Your task to perform on an android device: Open calendar and show me the second week of next month Image 0: 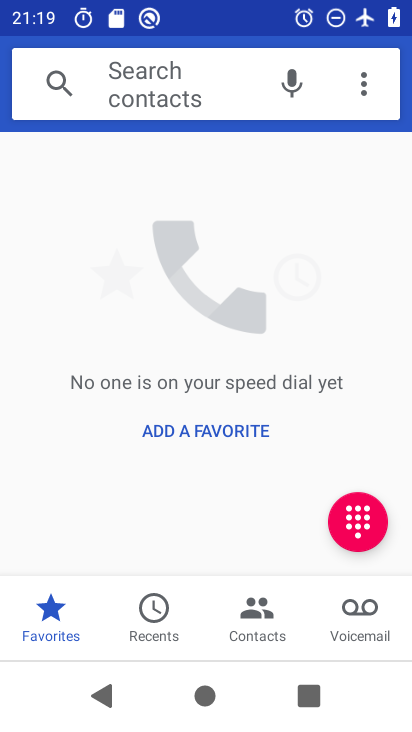
Step 0: press home button
Your task to perform on an android device: Open calendar and show me the second week of next month Image 1: 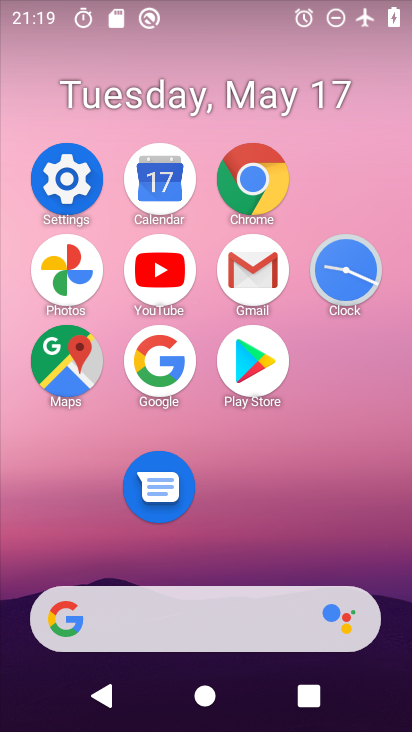
Step 1: click (187, 180)
Your task to perform on an android device: Open calendar and show me the second week of next month Image 2: 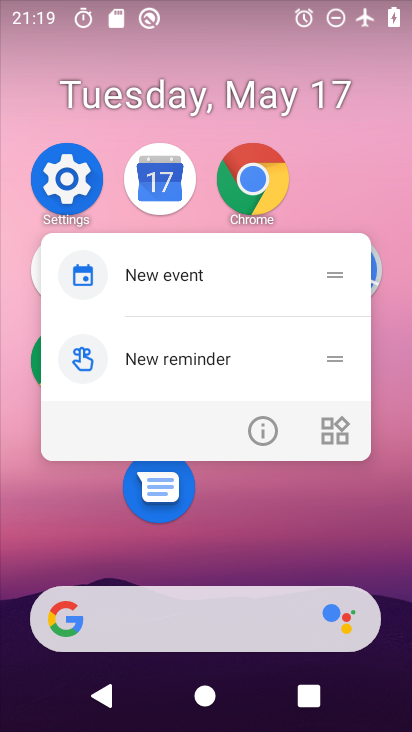
Step 2: click (182, 185)
Your task to perform on an android device: Open calendar and show me the second week of next month Image 3: 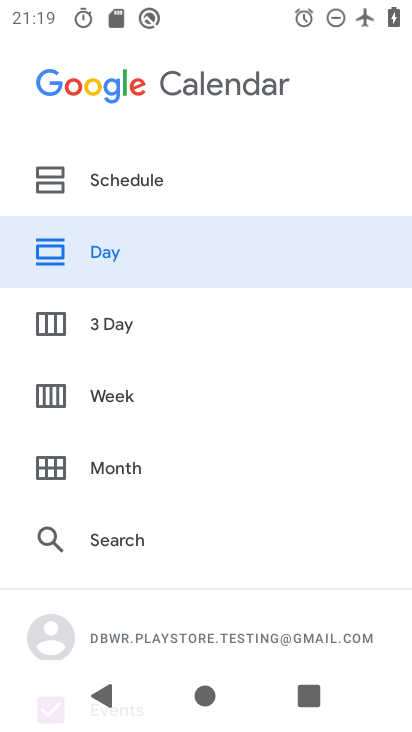
Step 3: press back button
Your task to perform on an android device: Open calendar and show me the second week of next month Image 4: 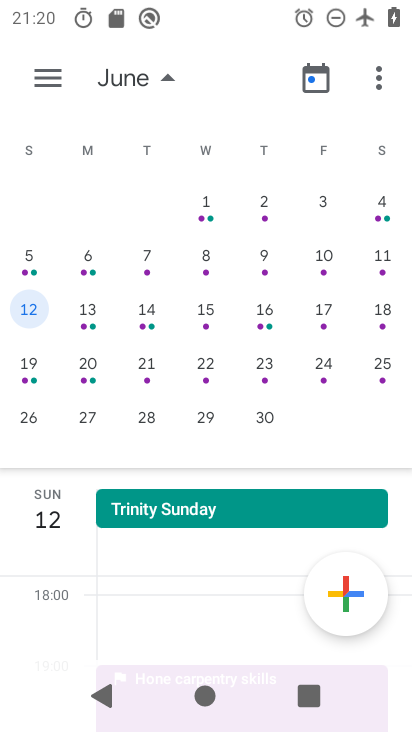
Step 4: click (63, 87)
Your task to perform on an android device: Open calendar and show me the second week of next month Image 5: 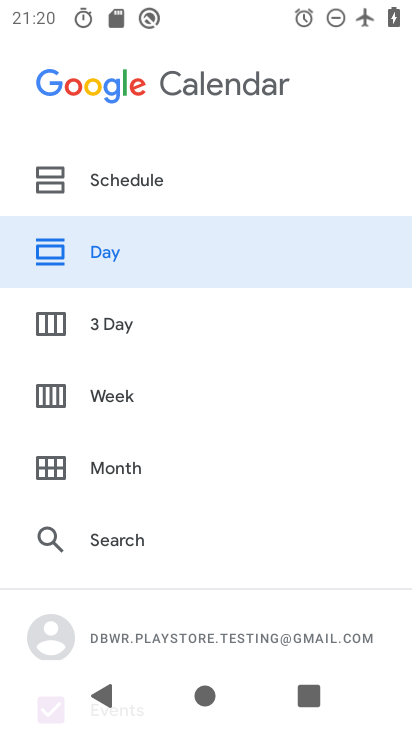
Step 5: click (151, 385)
Your task to perform on an android device: Open calendar and show me the second week of next month Image 6: 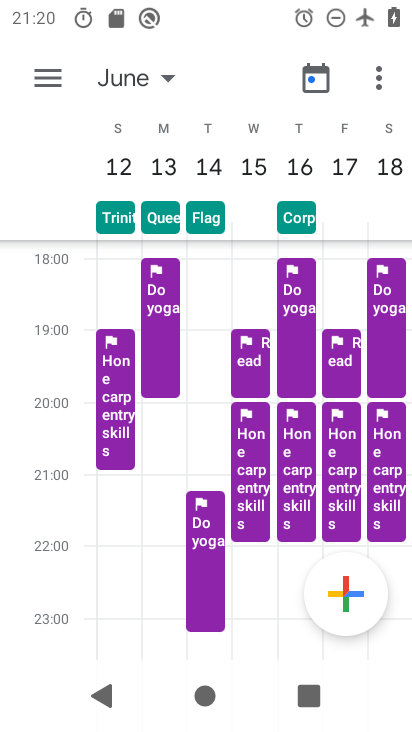
Step 6: task complete